Your task to perform on an android device: Show me popular videos on Youtube Image 0: 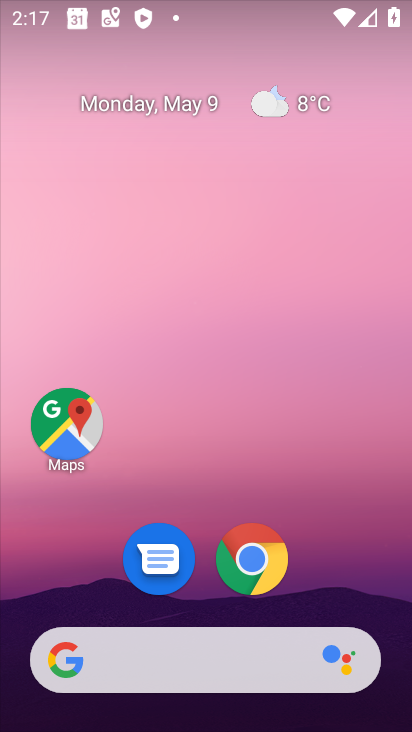
Step 0: drag from (325, 492) to (207, 46)
Your task to perform on an android device: Show me popular videos on Youtube Image 1: 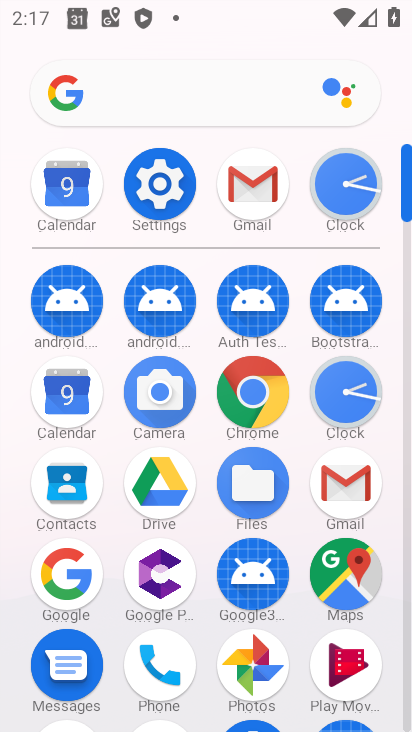
Step 1: drag from (200, 615) to (171, 244)
Your task to perform on an android device: Show me popular videos on Youtube Image 2: 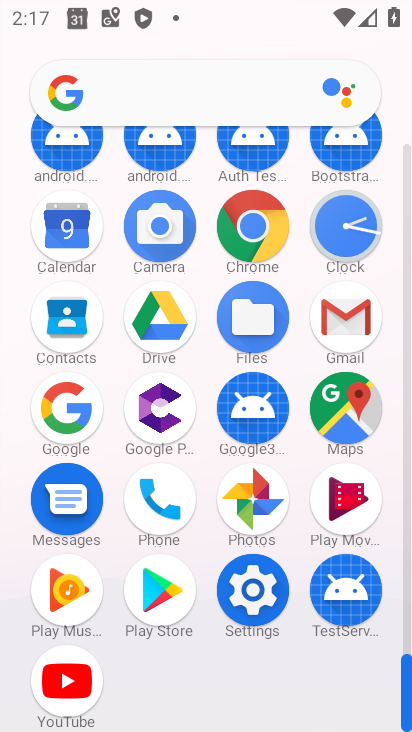
Step 2: click (64, 673)
Your task to perform on an android device: Show me popular videos on Youtube Image 3: 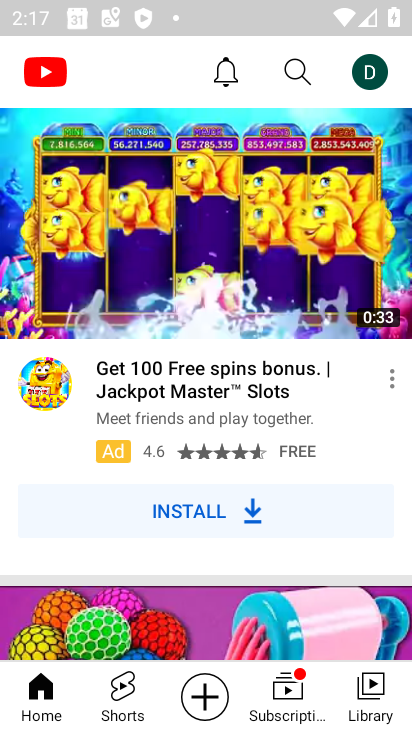
Step 3: click (128, 680)
Your task to perform on an android device: Show me popular videos on Youtube Image 4: 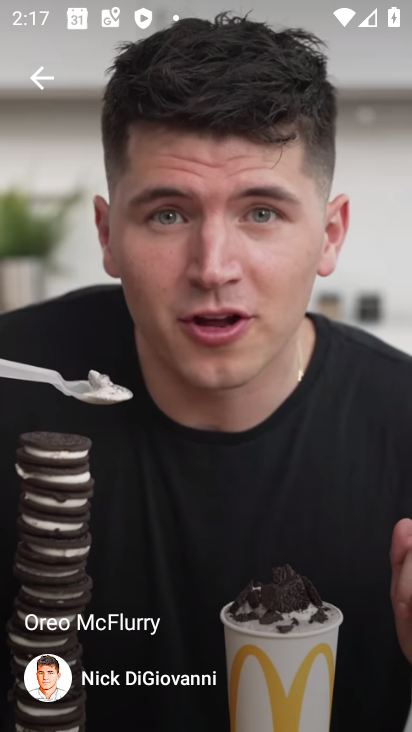
Step 4: task complete